Your task to perform on an android device: Open Google Maps and go to "Timeline" Image 0: 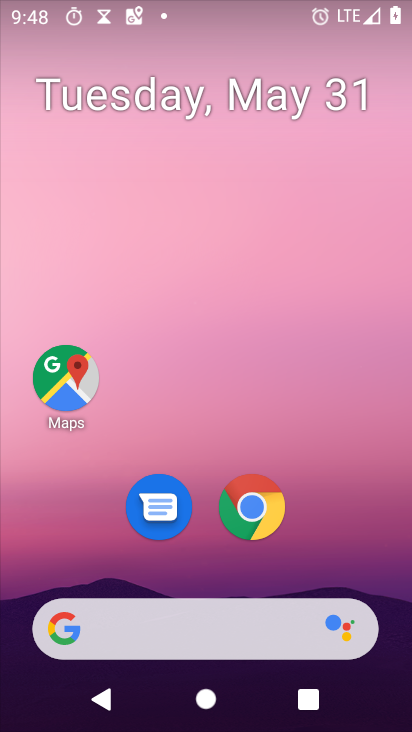
Step 0: click (51, 378)
Your task to perform on an android device: Open Google Maps and go to "Timeline" Image 1: 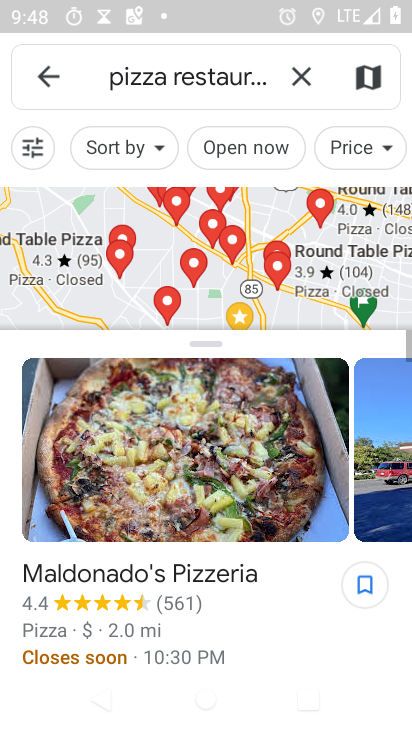
Step 1: click (49, 69)
Your task to perform on an android device: Open Google Maps and go to "Timeline" Image 2: 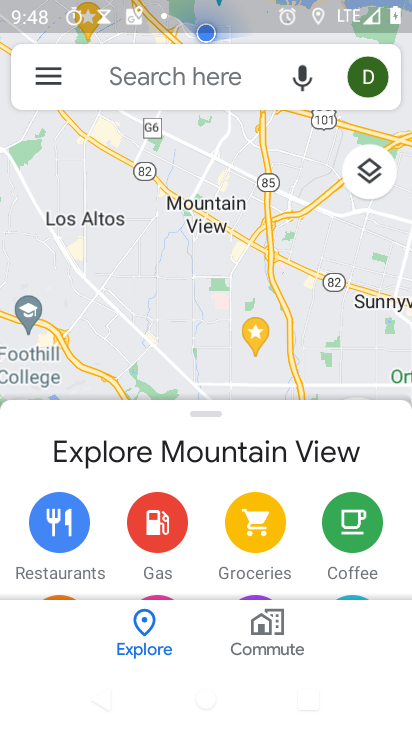
Step 2: click (50, 76)
Your task to perform on an android device: Open Google Maps and go to "Timeline" Image 3: 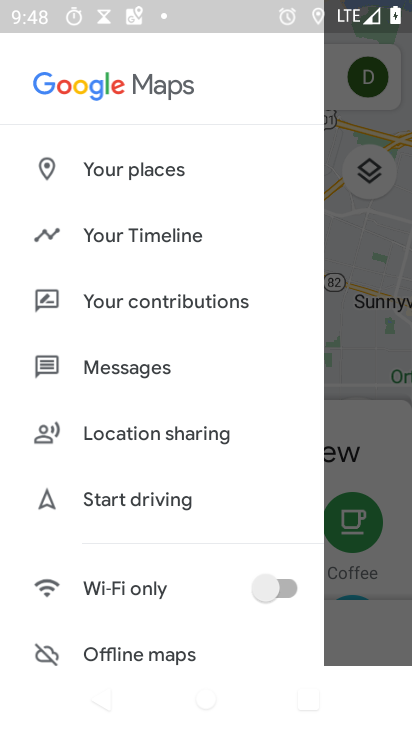
Step 3: click (123, 238)
Your task to perform on an android device: Open Google Maps and go to "Timeline" Image 4: 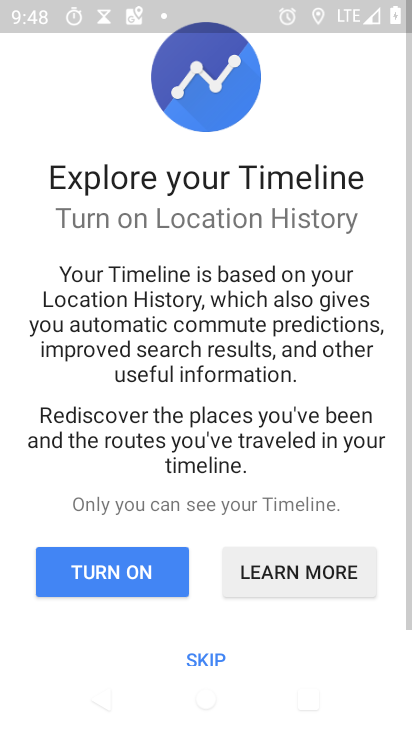
Step 4: task complete